Your task to perform on an android device: Empty the shopping cart on walmart.com. Search for dell xps on walmart.com, select the first entry, and add it to the cart. Image 0: 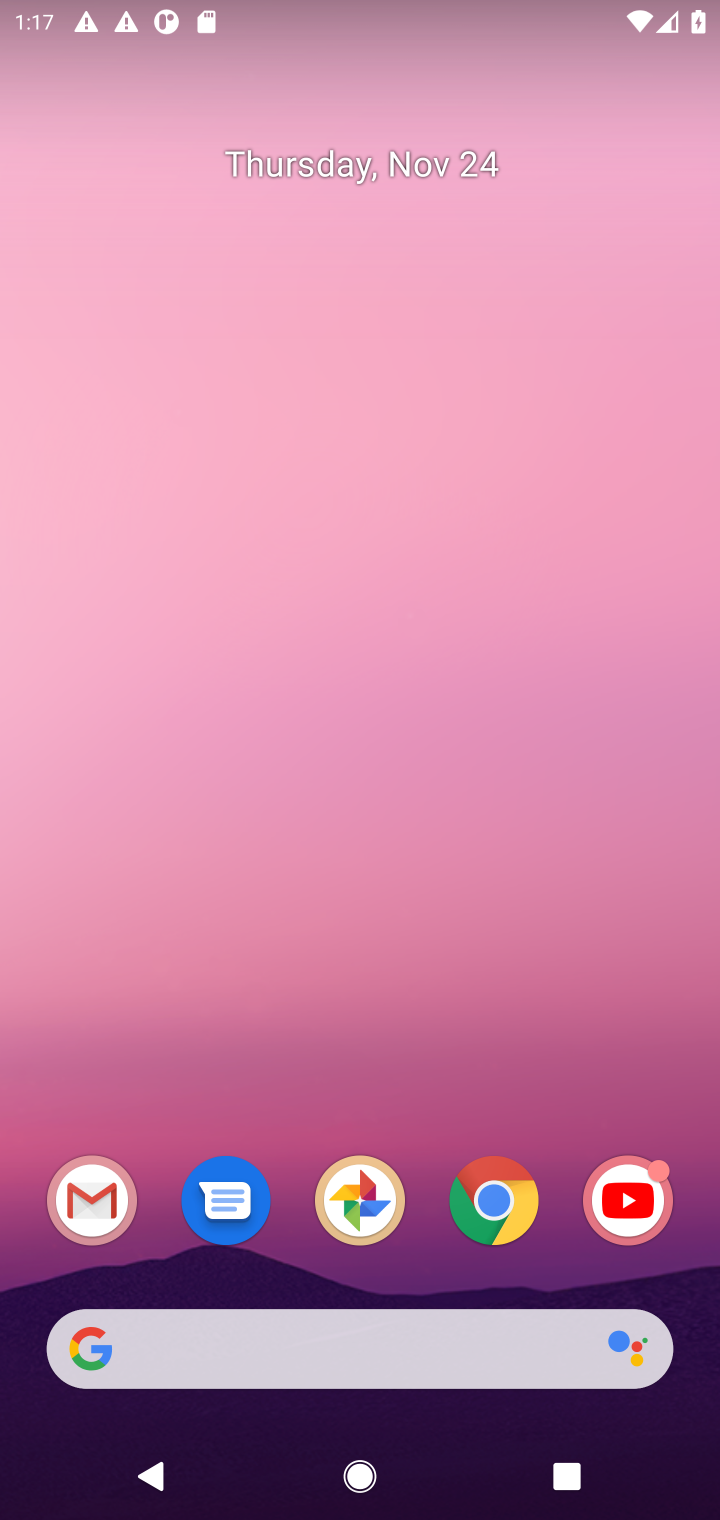
Step 0: click (322, 1353)
Your task to perform on an android device: Empty the shopping cart on walmart.com. Search for dell xps on walmart.com, select the first entry, and add it to the cart. Image 1: 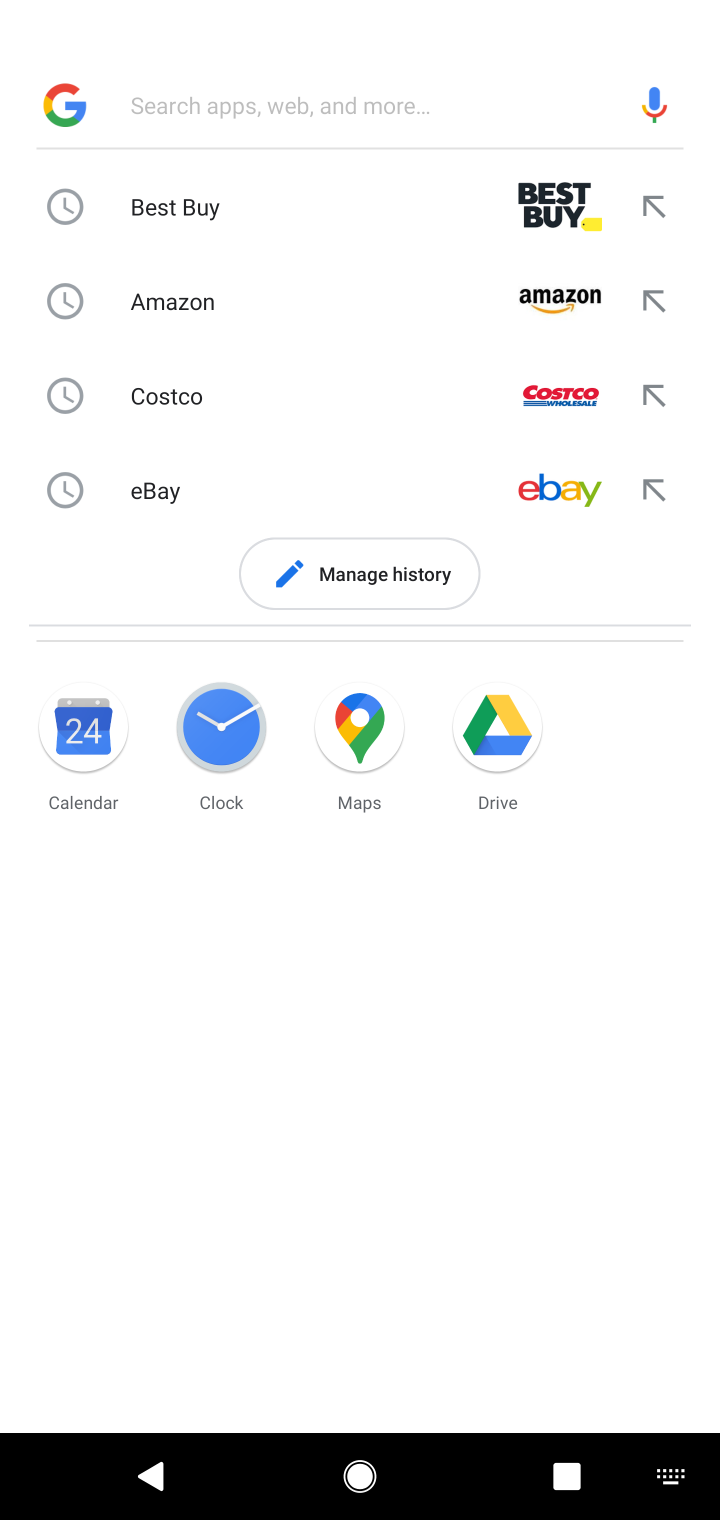
Step 1: type "walmart"
Your task to perform on an android device: Empty the shopping cart on walmart.com. Search for dell xps on walmart.com, select the first entry, and add it to the cart. Image 2: 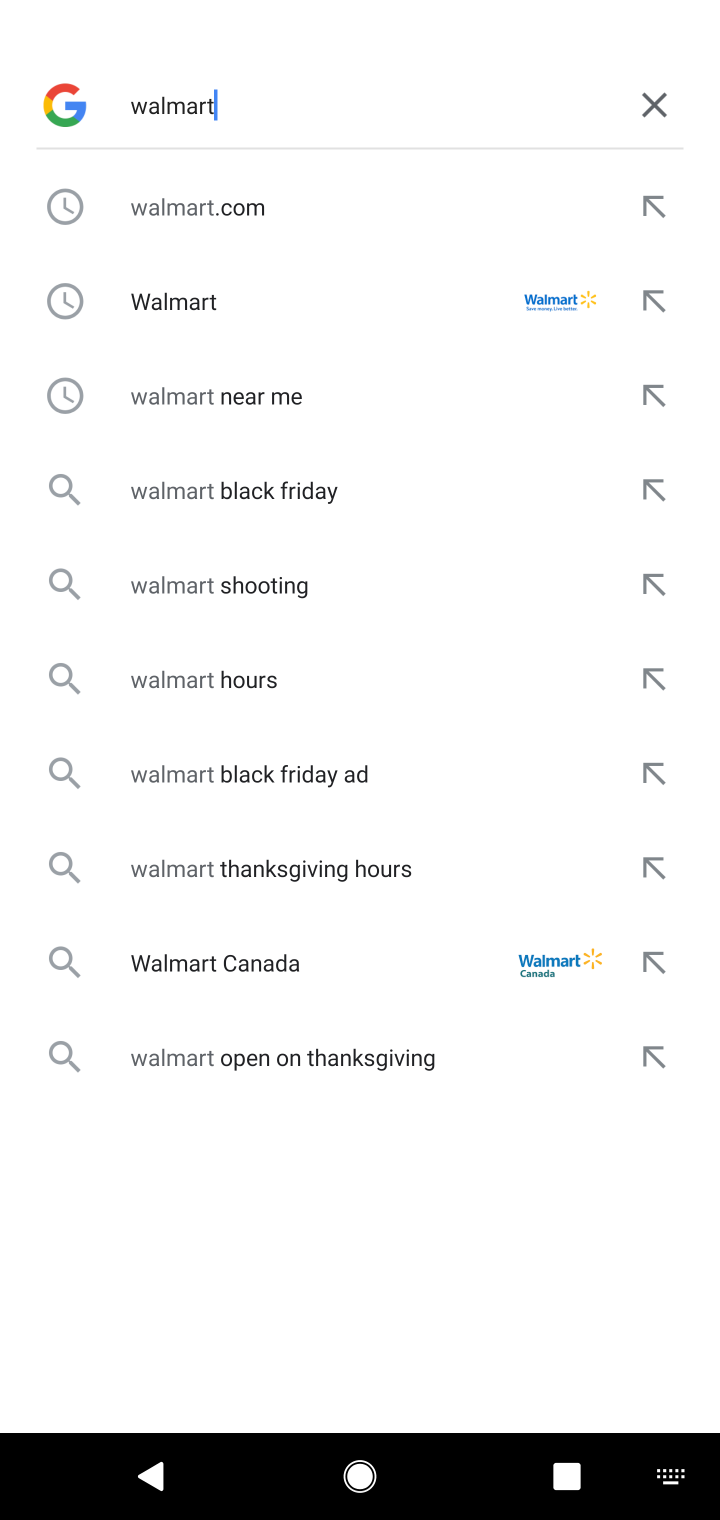
Step 2: click (261, 240)
Your task to perform on an android device: Empty the shopping cart on walmart.com. Search for dell xps on walmart.com, select the first entry, and add it to the cart. Image 3: 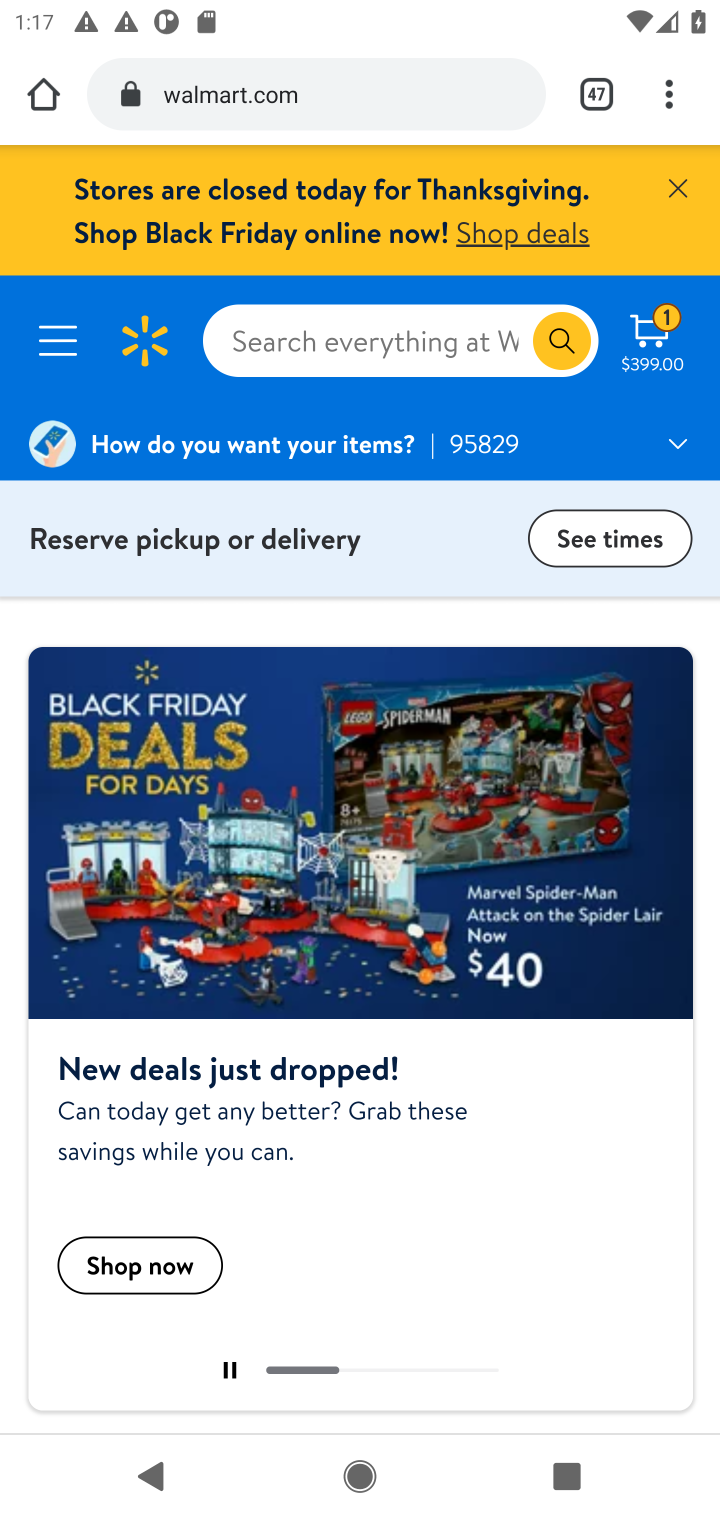
Step 3: task complete